Your task to perform on an android device: toggle notifications settings in the gmail app Image 0: 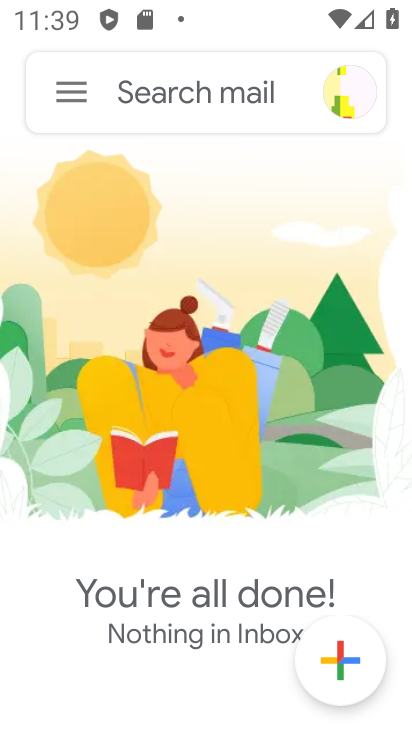
Step 0: click (66, 84)
Your task to perform on an android device: toggle notifications settings in the gmail app Image 1: 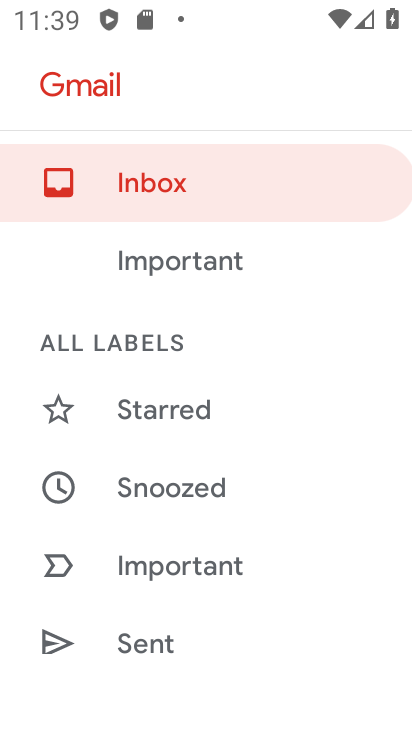
Step 1: drag from (217, 650) to (217, 200)
Your task to perform on an android device: toggle notifications settings in the gmail app Image 2: 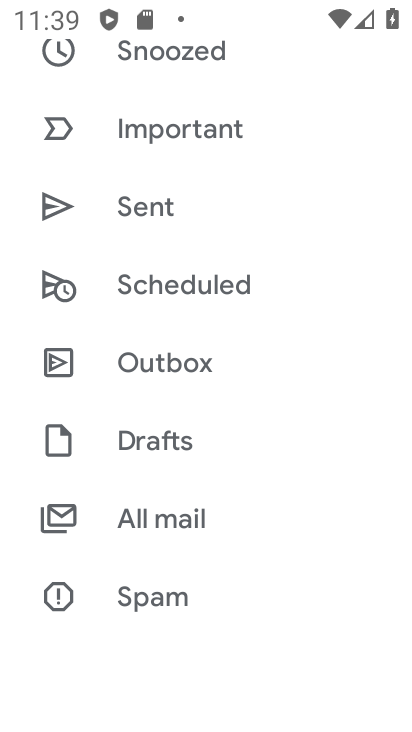
Step 2: drag from (202, 465) to (203, 206)
Your task to perform on an android device: toggle notifications settings in the gmail app Image 3: 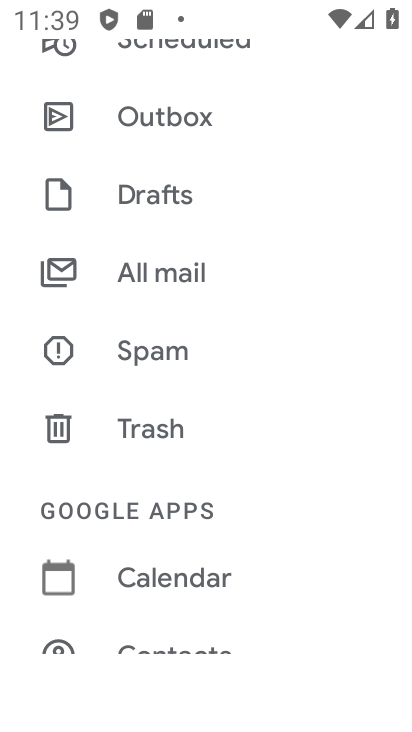
Step 3: drag from (184, 616) to (181, 245)
Your task to perform on an android device: toggle notifications settings in the gmail app Image 4: 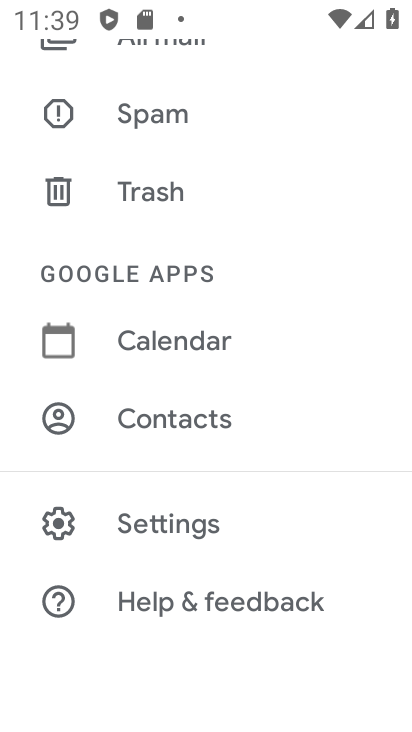
Step 4: click (177, 527)
Your task to perform on an android device: toggle notifications settings in the gmail app Image 5: 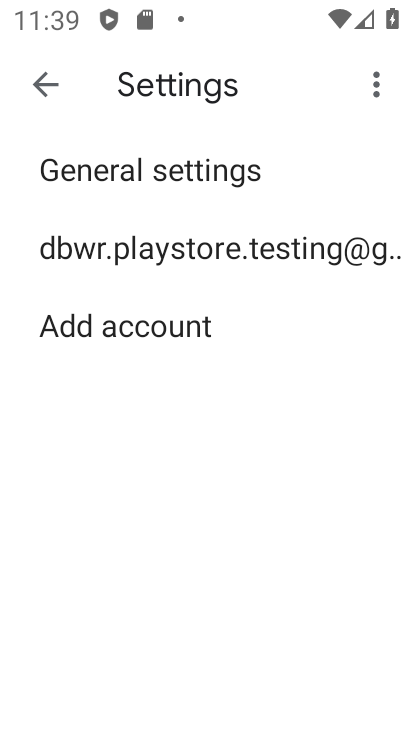
Step 5: click (177, 268)
Your task to perform on an android device: toggle notifications settings in the gmail app Image 6: 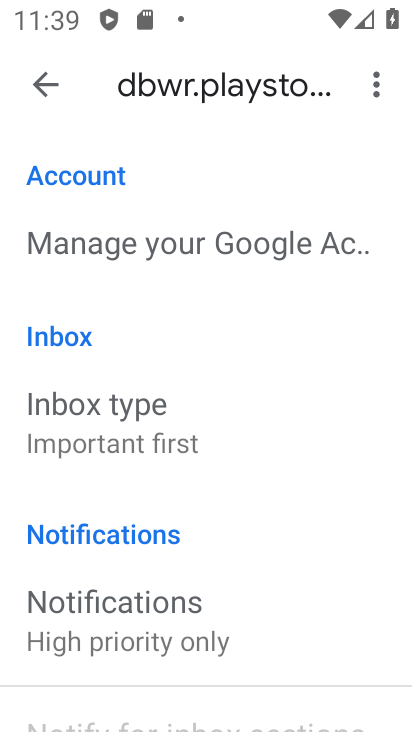
Step 6: drag from (155, 650) to (155, 502)
Your task to perform on an android device: toggle notifications settings in the gmail app Image 7: 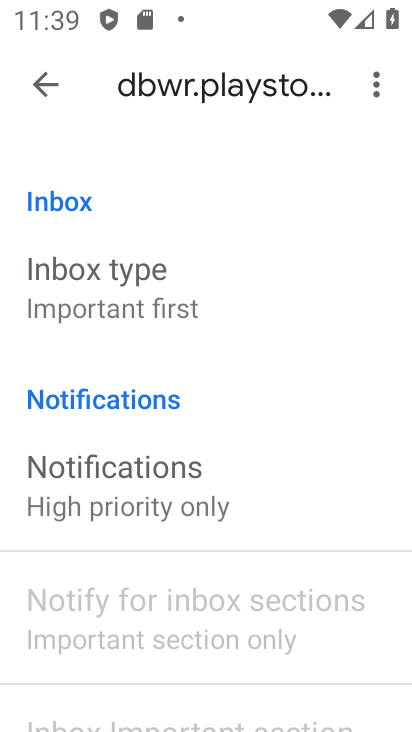
Step 7: click (155, 501)
Your task to perform on an android device: toggle notifications settings in the gmail app Image 8: 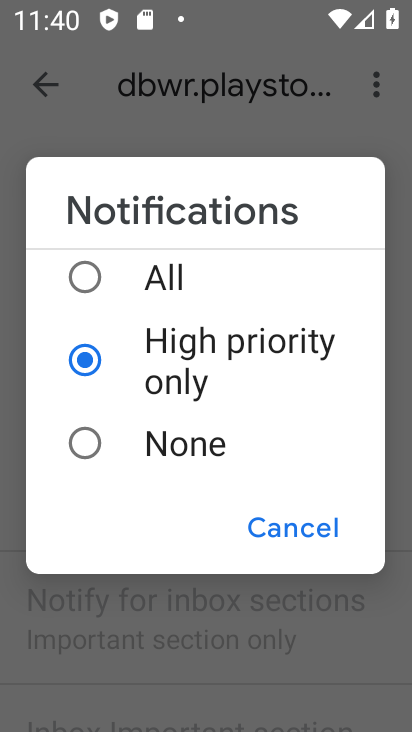
Step 8: click (159, 285)
Your task to perform on an android device: toggle notifications settings in the gmail app Image 9: 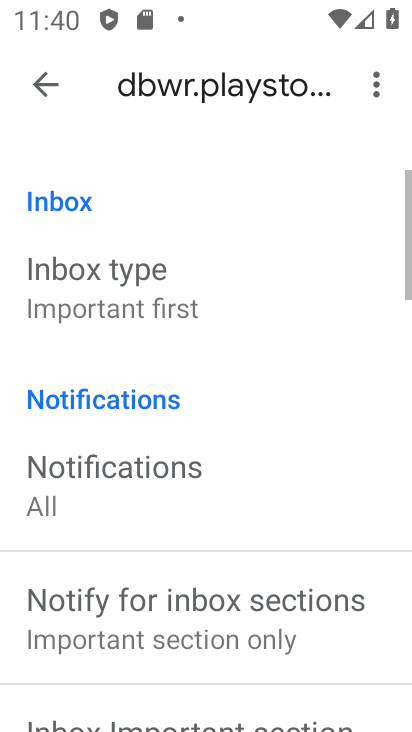
Step 9: task complete